Your task to perform on an android device: Open eBay Image 0: 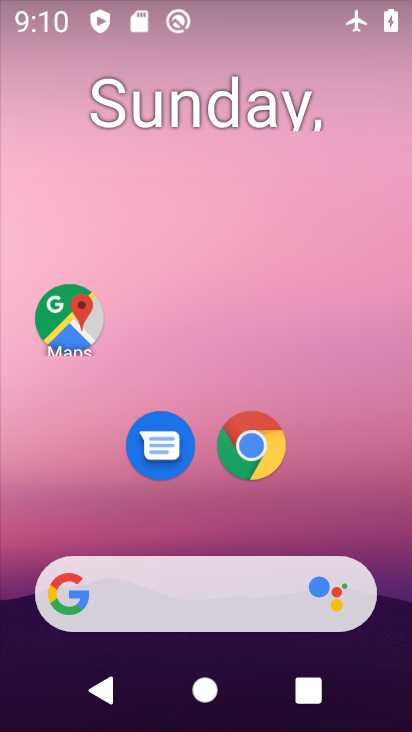
Step 0: click (264, 463)
Your task to perform on an android device: Open eBay Image 1: 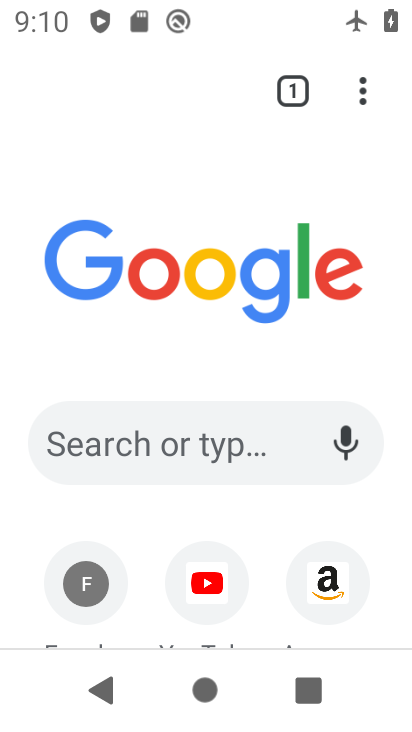
Step 1: click (244, 460)
Your task to perform on an android device: Open eBay Image 2: 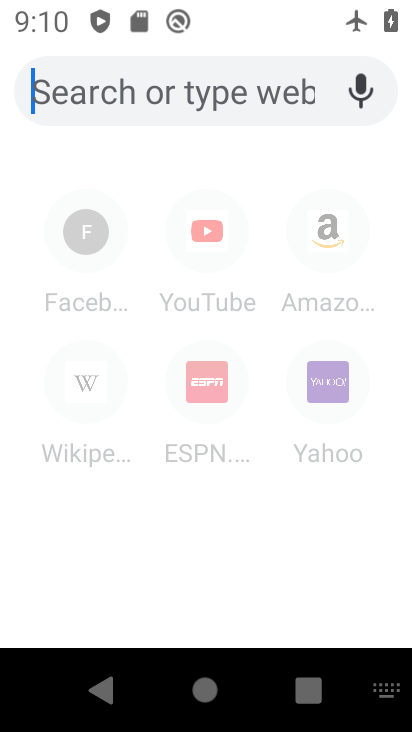
Step 2: type "ebay"
Your task to perform on an android device: Open eBay Image 3: 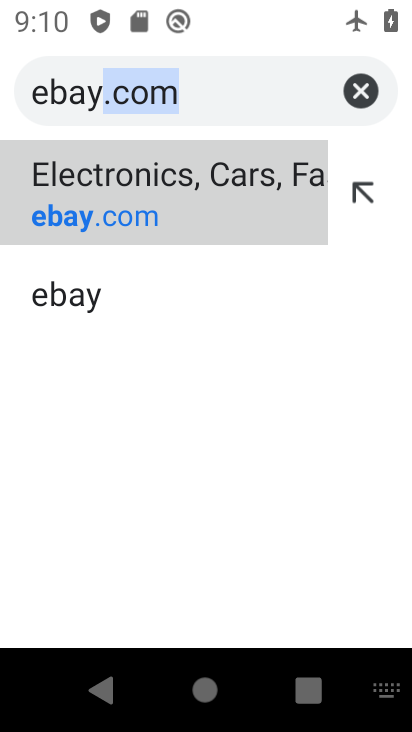
Step 3: click (248, 206)
Your task to perform on an android device: Open eBay Image 4: 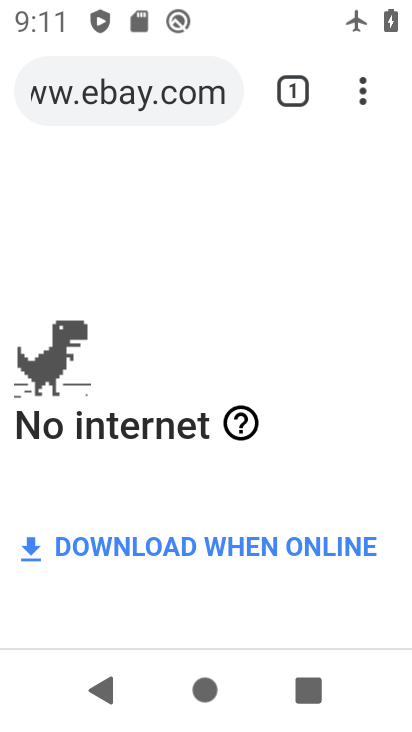
Step 4: task complete